Your task to perform on an android device: What's the weather today? Image 0: 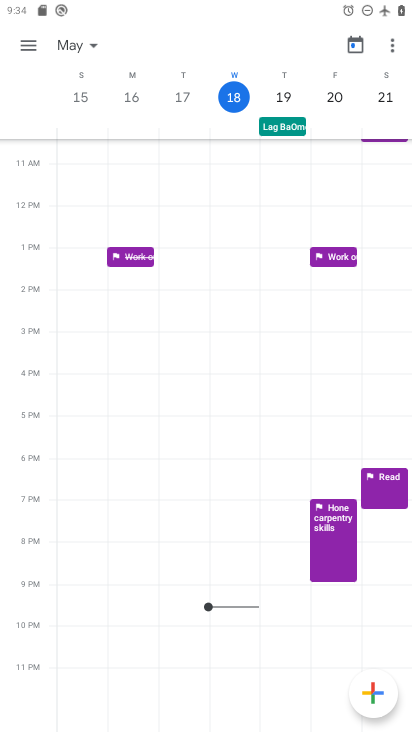
Step 0: press home button
Your task to perform on an android device: What's the weather today? Image 1: 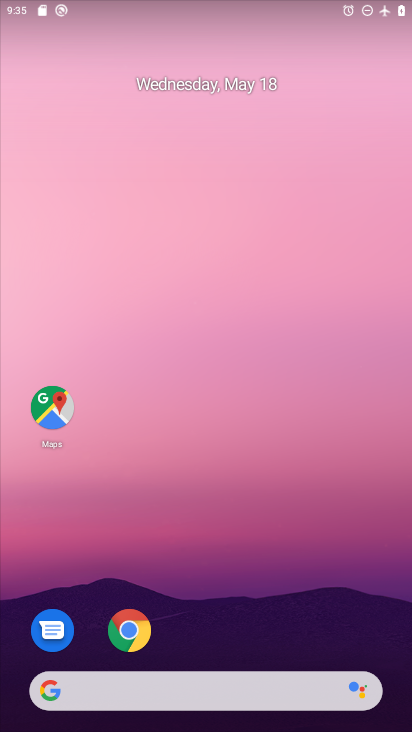
Step 1: drag from (203, 680) to (196, 8)
Your task to perform on an android device: What's the weather today? Image 2: 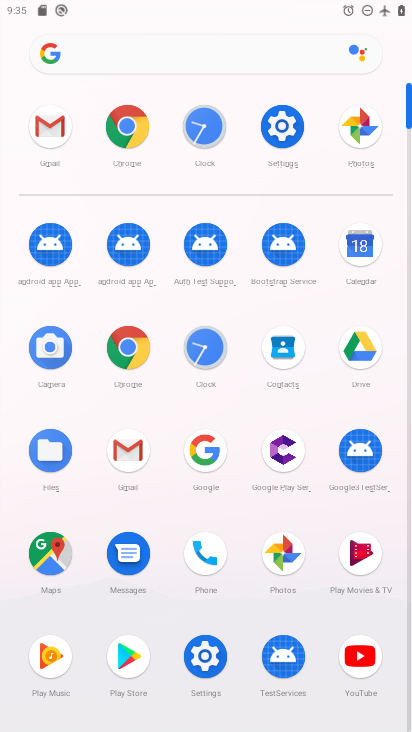
Step 2: click (211, 441)
Your task to perform on an android device: What's the weather today? Image 3: 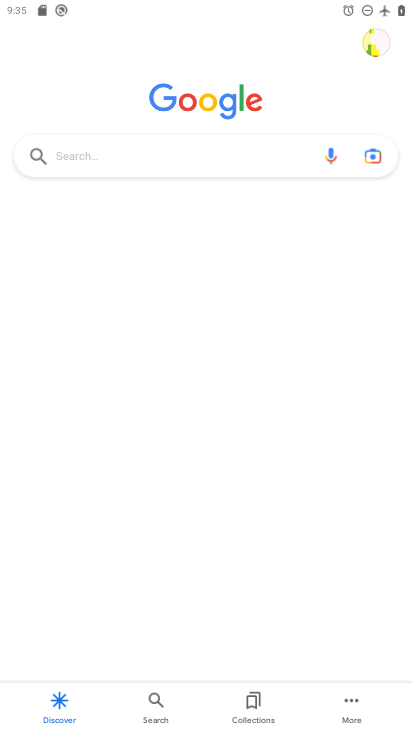
Step 3: click (209, 171)
Your task to perform on an android device: What's the weather today? Image 4: 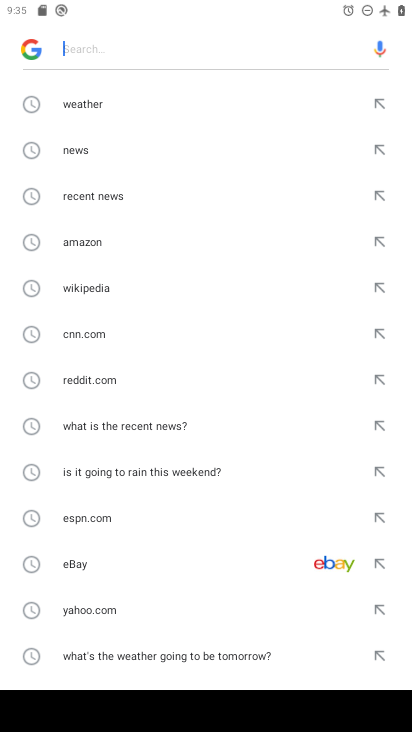
Step 4: click (126, 110)
Your task to perform on an android device: What's the weather today? Image 5: 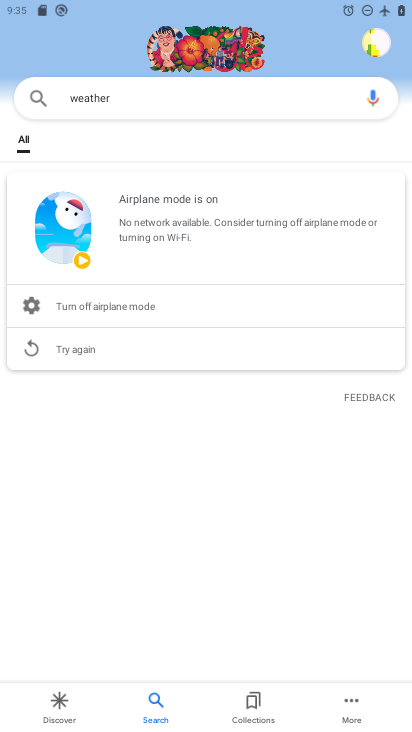
Step 5: task complete